Your task to perform on an android device: Go to calendar. Show me events next week Image 0: 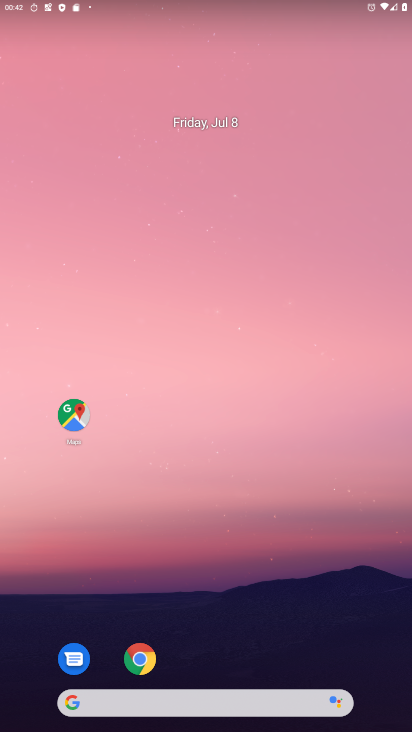
Step 0: click (203, 122)
Your task to perform on an android device: Go to calendar. Show me events next week Image 1: 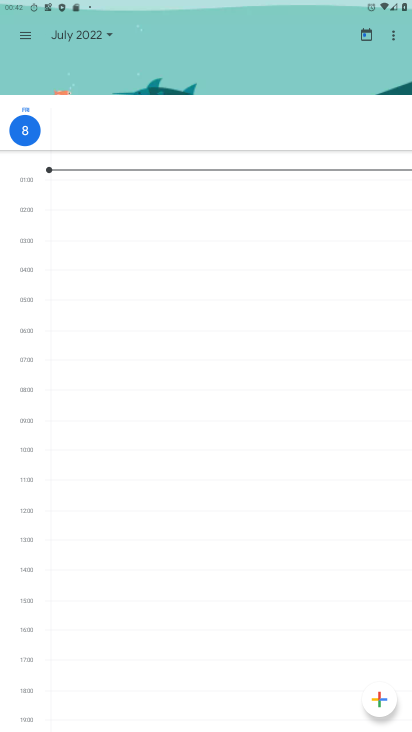
Step 1: click (27, 36)
Your task to perform on an android device: Go to calendar. Show me events next week Image 2: 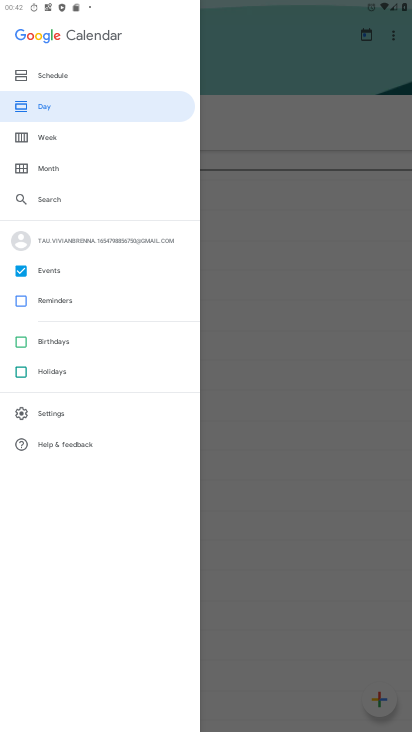
Step 2: click (80, 144)
Your task to perform on an android device: Go to calendar. Show me events next week Image 3: 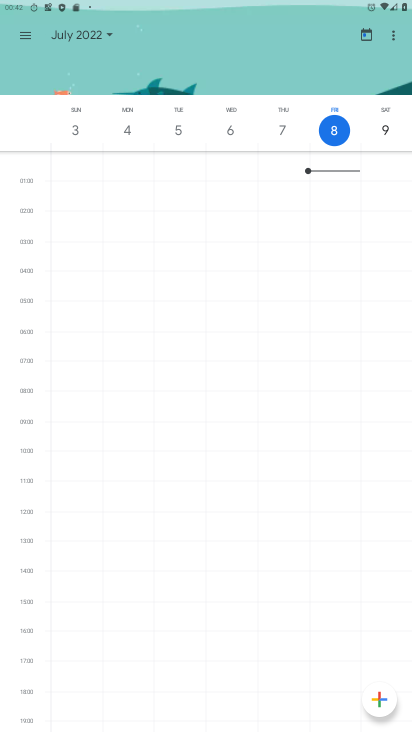
Step 3: click (114, 35)
Your task to perform on an android device: Go to calendar. Show me events next week Image 4: 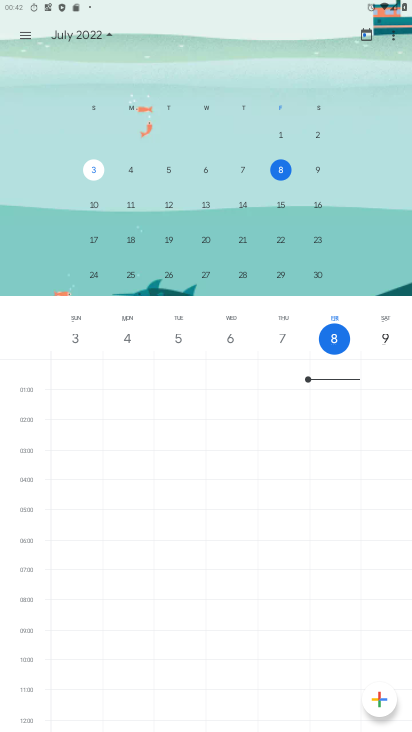
Step 4: click (175, 240)
Your task to perform on an android device: Go to calendar. Show me events next week Image 5: 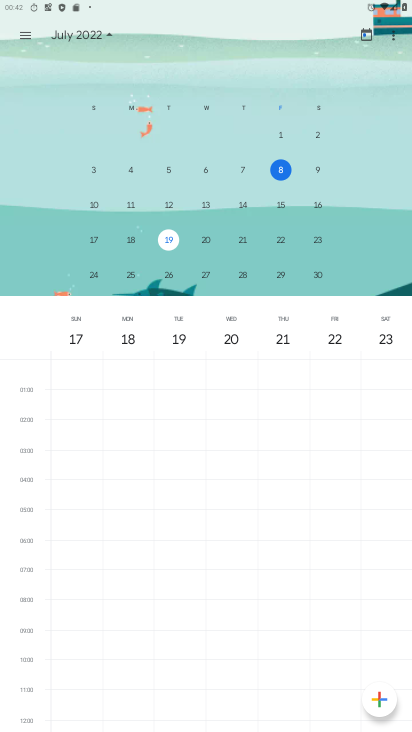
Step 5: task complete